Your task to perform on an android device: Find coffee shops on Maps Image 0: 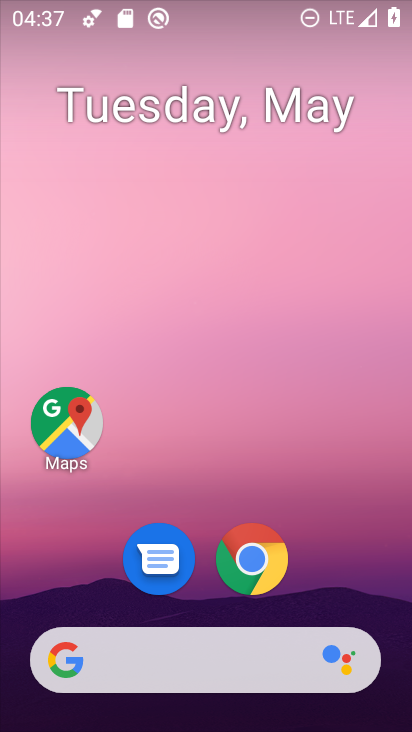
Step 0: drag from (201, 713) to (206, 183)
Your task to perform on an android device: Find coffee shops on Maps Image 1: 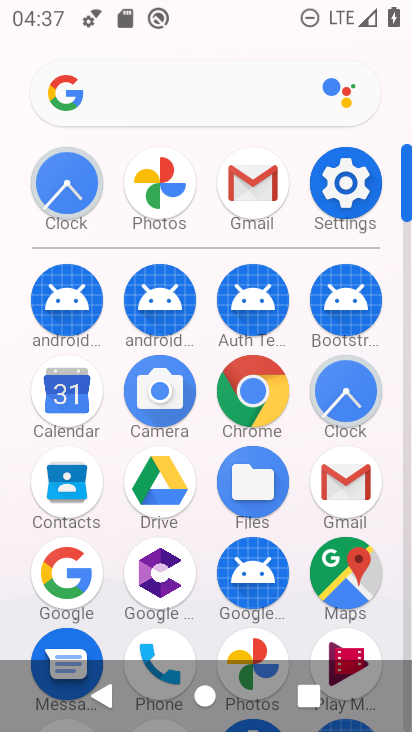
Step 1: click (340, 570)
Your task to perform on an android device: Find coffee shops on Maps Image 2: 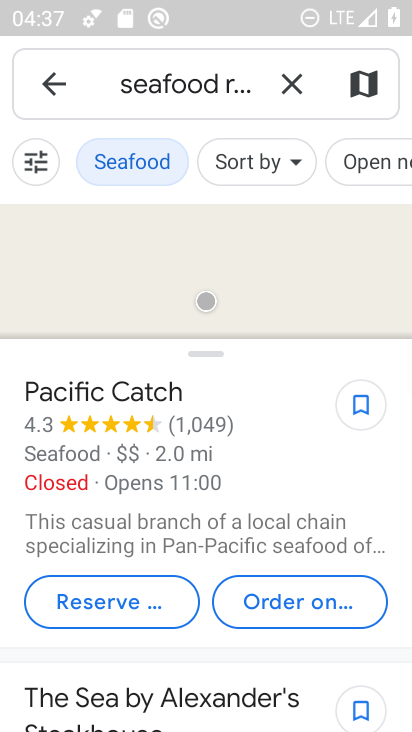
Step 2: click (289, 83)
Your task to perform on an android device: Find coffee shops on Maps Image 3: 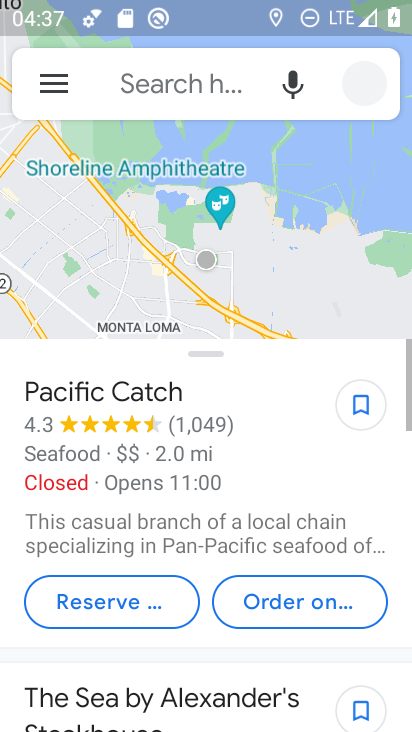
Step 3: click (185, 81)
Your task to perform on an android device: Find coffee shops on Maps Image 4: 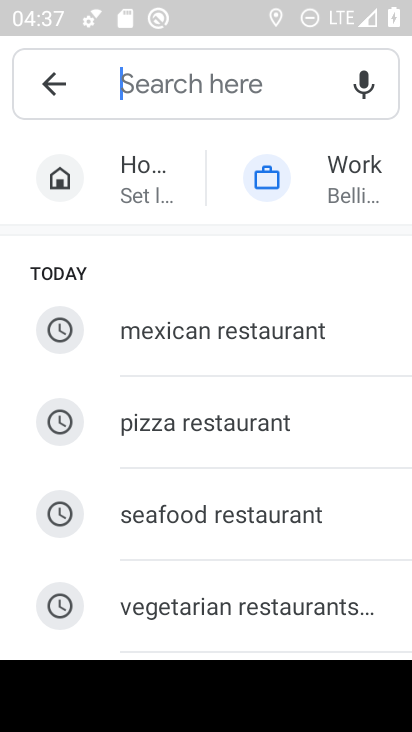
Step 4: type "coffee shops"
Your task to perform on an android device: Find coffee shops on Maps Image 5: 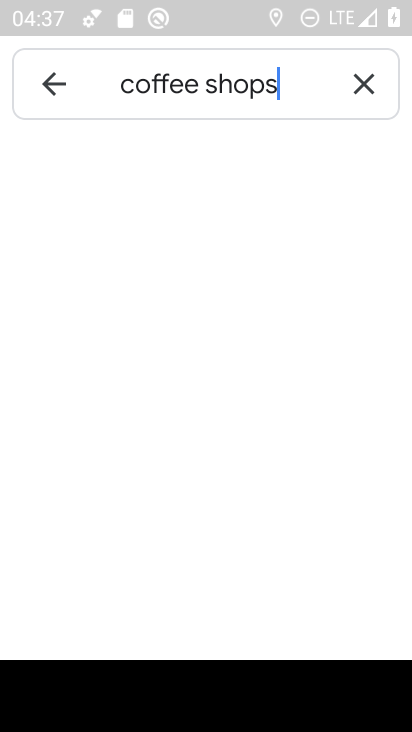
Step 5: type ""
Your task to perform on an android device: Find coffee shops on Maps Image 6: 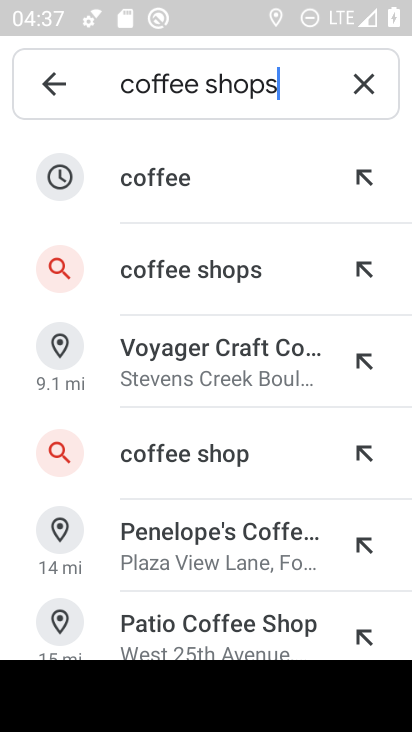
Step 6: click (194, 273)
Your task to perform on an android device: Find coffee shops on Maps Image 7: 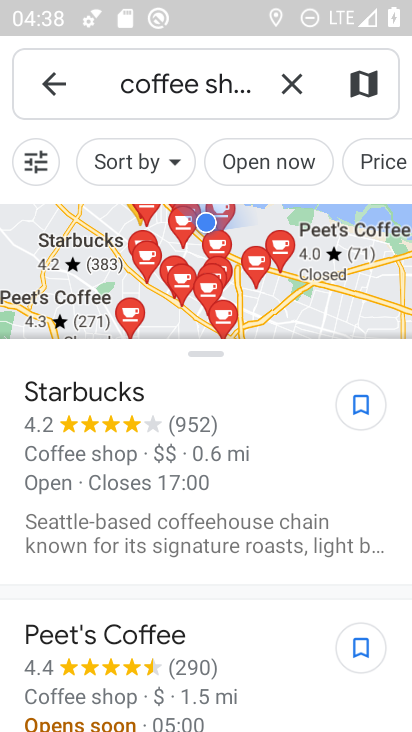
Step 7: task complete